Your task to perform on an android device: Open Amazon Image 0: 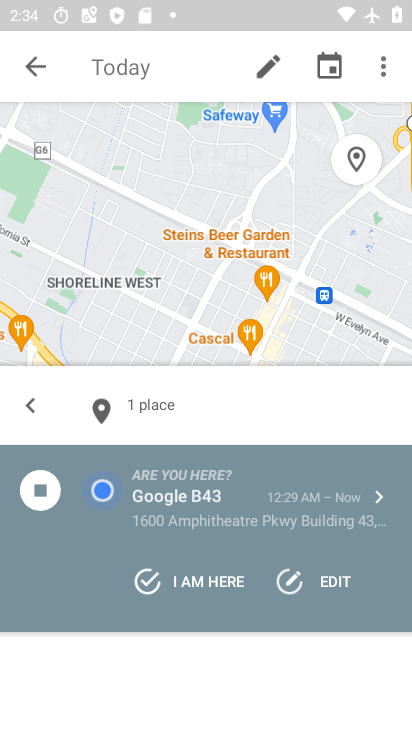
Step 0: press home button
Your task to perform on an android device: Open Amazon Image 1: 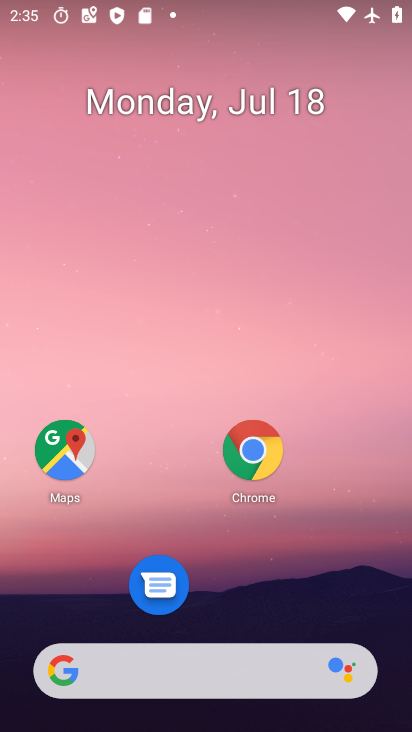
Step 1: drag from (193, 553) to (327, 85)
Your task to perform on an android device: Open Amazon Image 2: 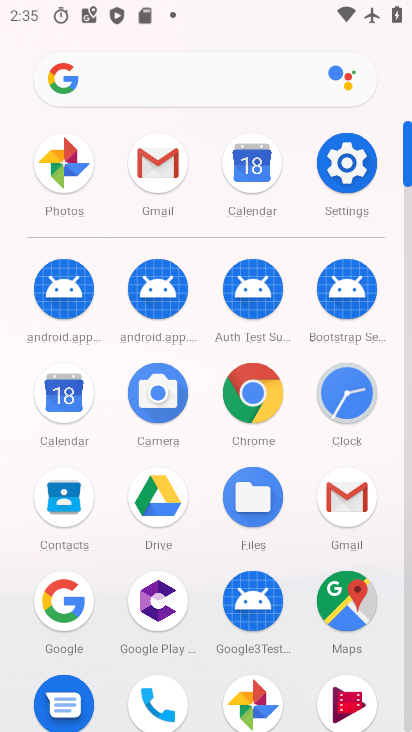
Step 2: click (260, 392)
Your task to perform on an android device: Open Amazon Image 3: 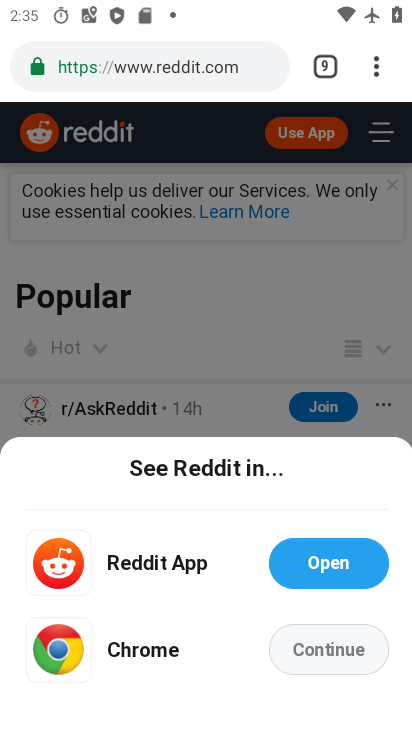
Step 3: drag from (372, 67) to (199, 151)
Your task to perform on an android device: Open Amazon Image 4: 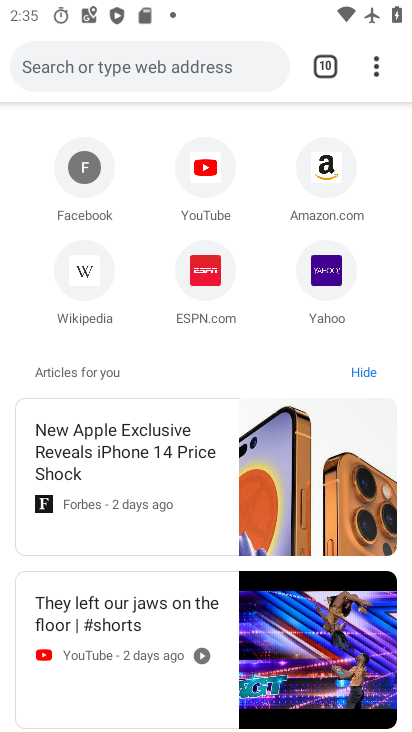
Step 4: click (324, 161)
Your task to perform on an android device: Open Amazon Image 5: 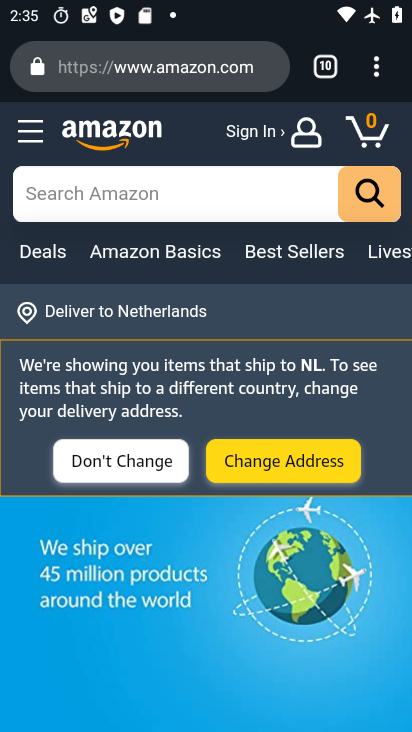
Step 5: task complete